Your task to perform on an android device: Open calendar and show me the fourth week of next month Image 0: 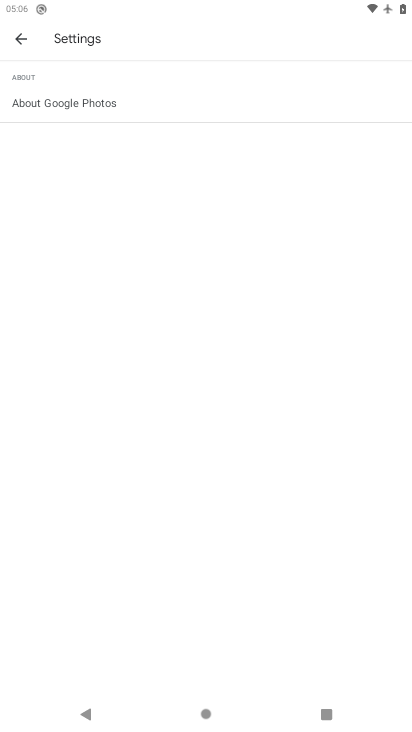
Step 0: press home button
Your task to perform on an android device: Open calendar and show me the fourth week of next month Image 1: 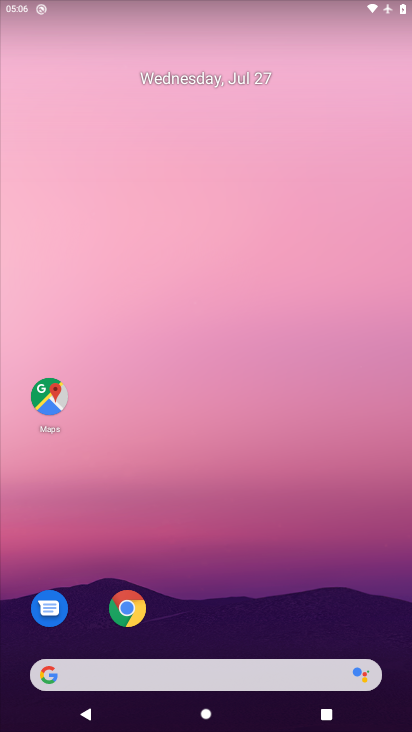
Step 1: drag from (243, 615) to (210, 34)
Your task to perform on an android device: Open calendar and show me the fourth week of next month Image 2: 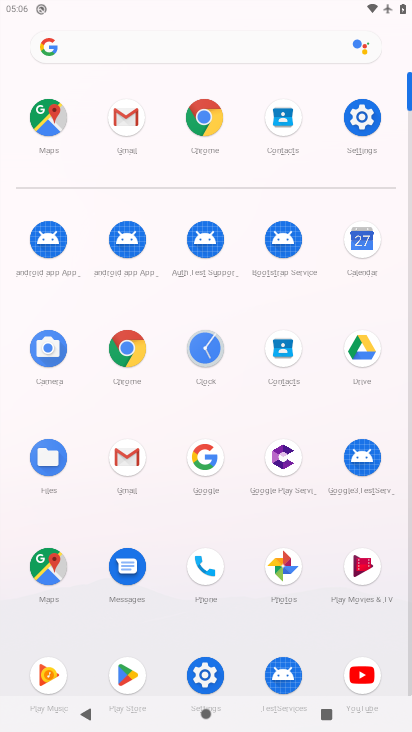
Step 2: click (358, 245)
Your task to perform on an android device: Open calendar and show me the fourth week of next month Image 3: 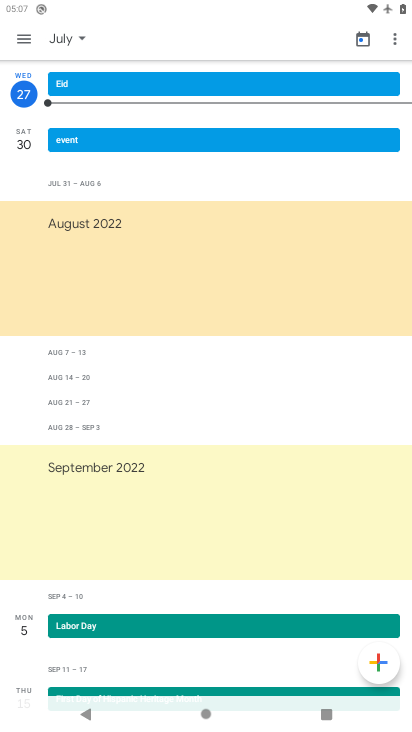
Step 3: click (71, 38)
Your task to perform on an android device: Open calendar and show me the fourth week of next month Image 4: 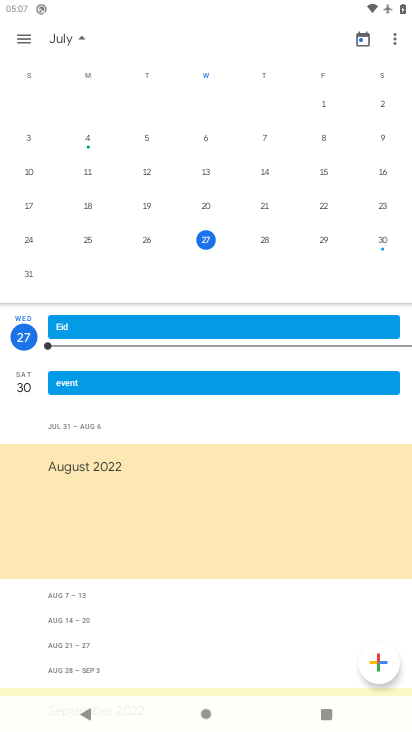
Step 4: drag from (311, 186) to (19, 135)
Your task to perform on an android device: Open calendar and show me the fourth week of next month Image 5: 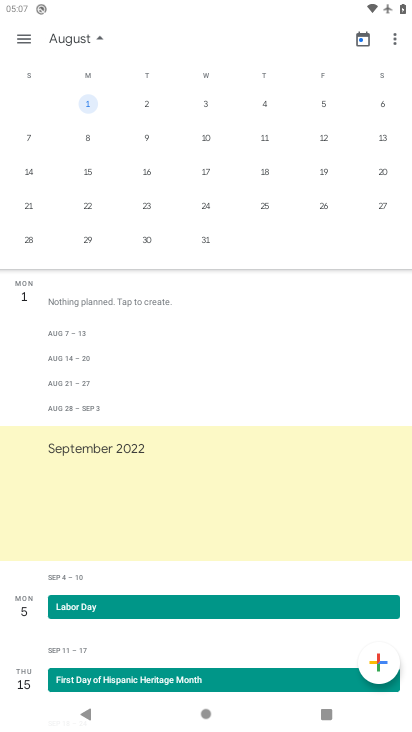
Step 5: click (290, 170)
Your task to perform on an android device: Open calendar and show me the fourth week of next month Image 6: 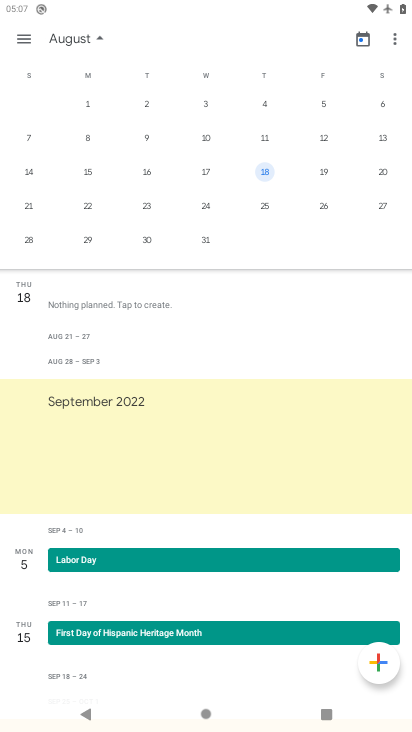
Step 6: click (34, 212)
Your task to perform on an android device: Open calendar and show me the fourth week of next month Image 7: 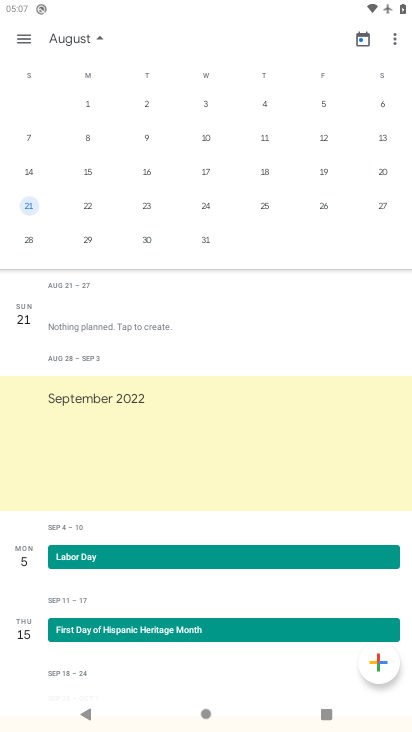
Step 7: click (86, 208)
Your task to perform on an android device: Open calendar and show me the fourth week of next month Image 8: 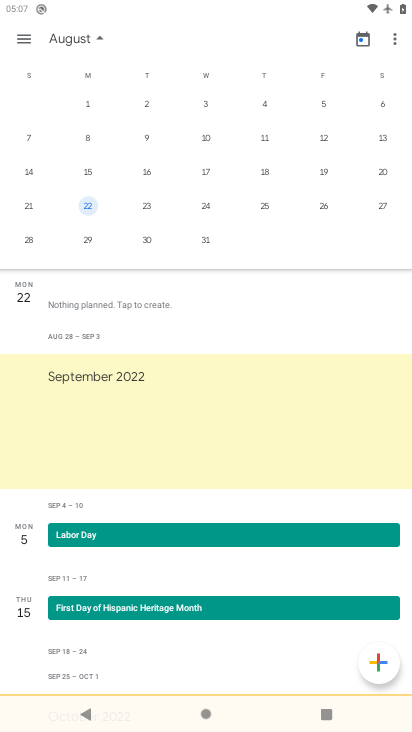
Step 8: click (144, 207)
Your task to perform on an android device: Open calendar and show me the fourth week of next month Image 9: 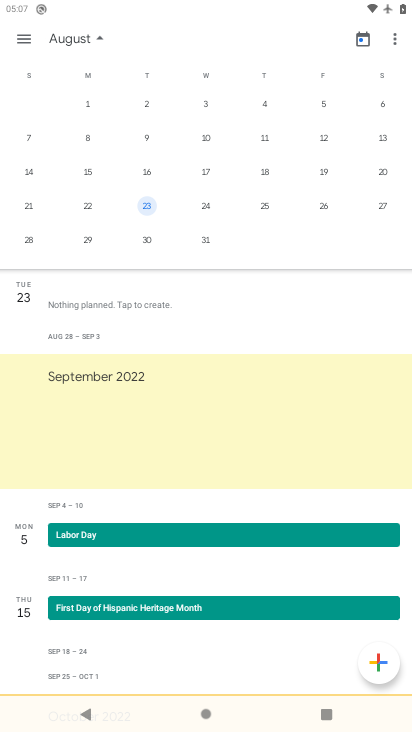
Step 9: click (204, 204)
Your task to perform on an android device: Open calendar and show me the fourth week of next month Image 10: 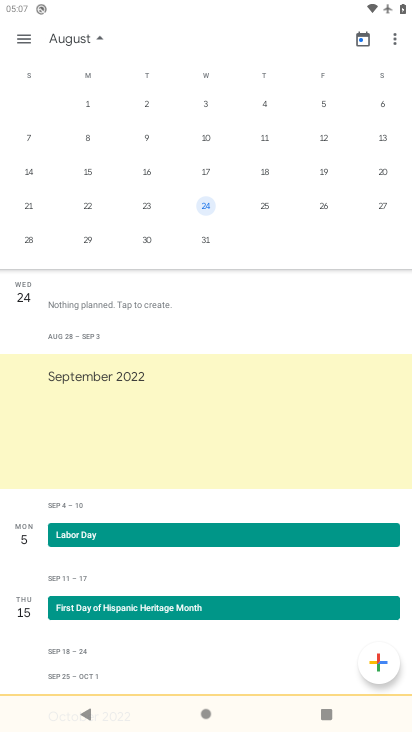
Step 10: click (267, 201)
Your task to perform on an android device: Open calendar and show me the fourth week of next month Image 11: 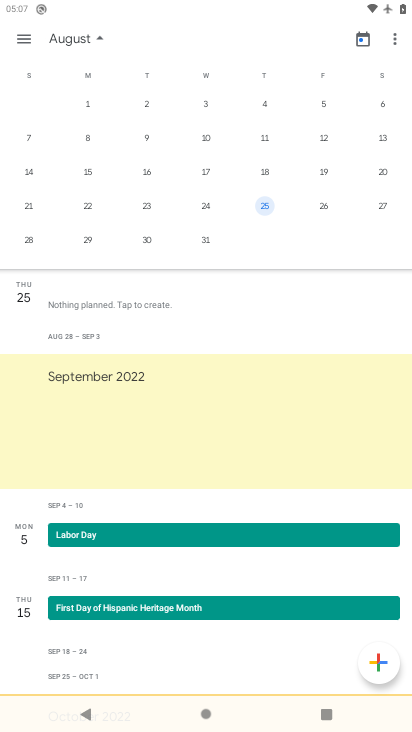
Step 11: click (323, 202)
Your task to perform on an android device: Open calendar and show me the fourth week of next month Image 12: 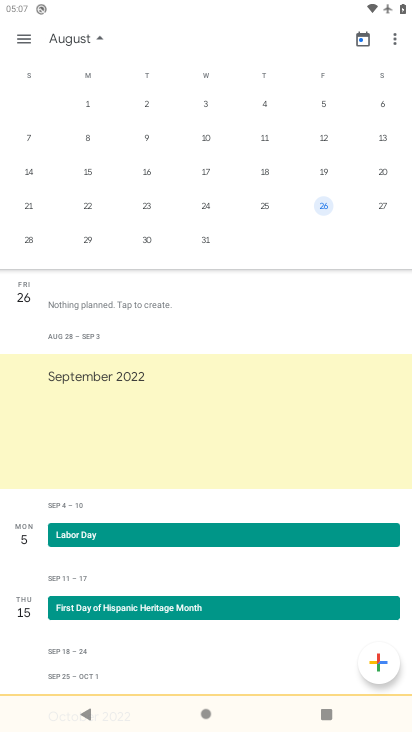
Step 12: click (386, 208)
Your task to perform on an android device: Open calendar and show me the fourth week of next month Image 13: 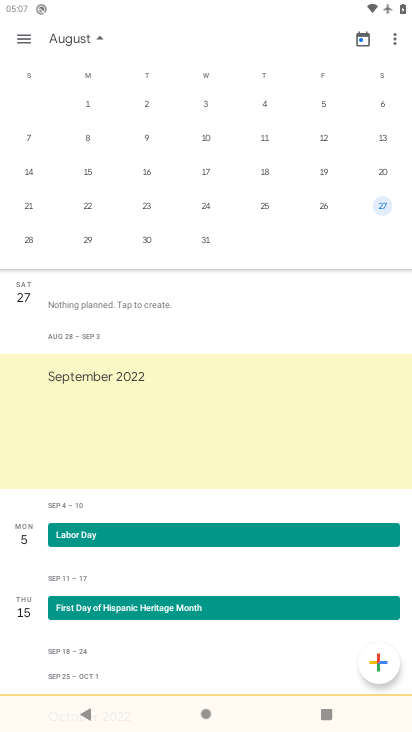
Step 13: click (32, 243)
Your task to perform on an android device: Open calendar and show me the fourth week of next month Image 14: 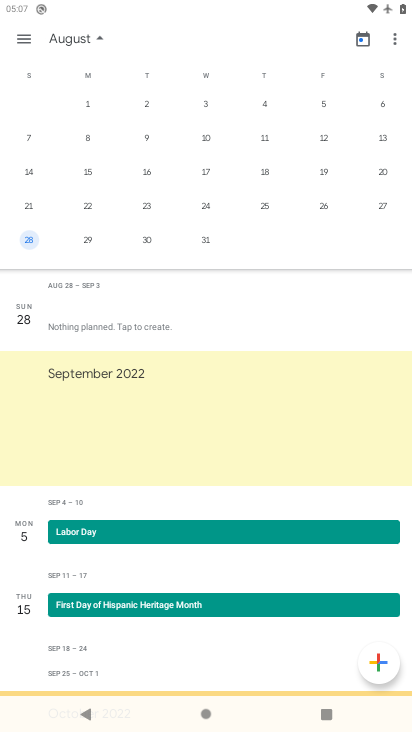
Step 14: task complete